Your task to perform on an android device: change the clock display to analog Image 0: 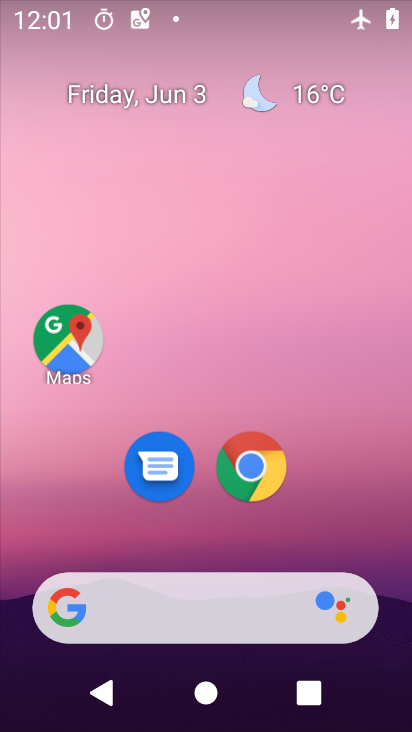
Step 0: drag from (192, 555) to (186, 162)
Your task to perform on an android device: change the clock display to analog Image 1: 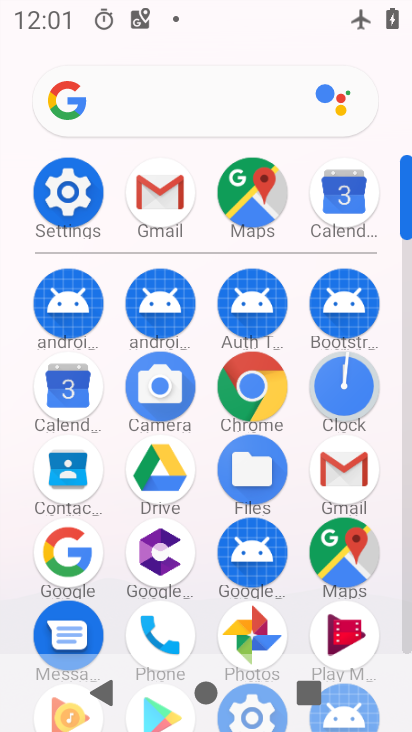
Step 1: click (348, 375)
Your task to perform on an android device: change the clock display to analog Image 2: 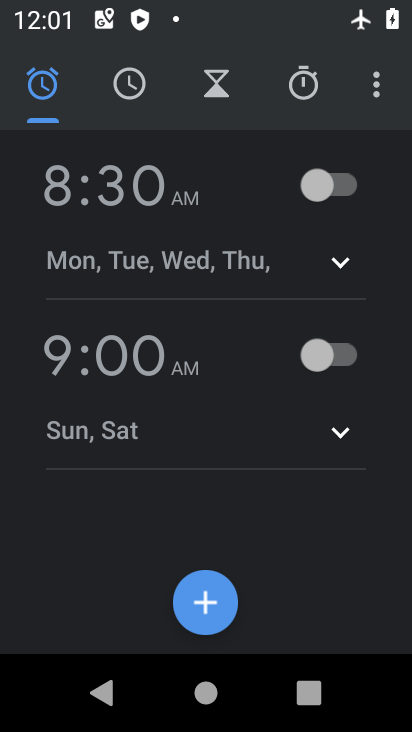
Step 2: click (366, 86)
Your task to perform on an android device: change the clock display to analog Image 3: 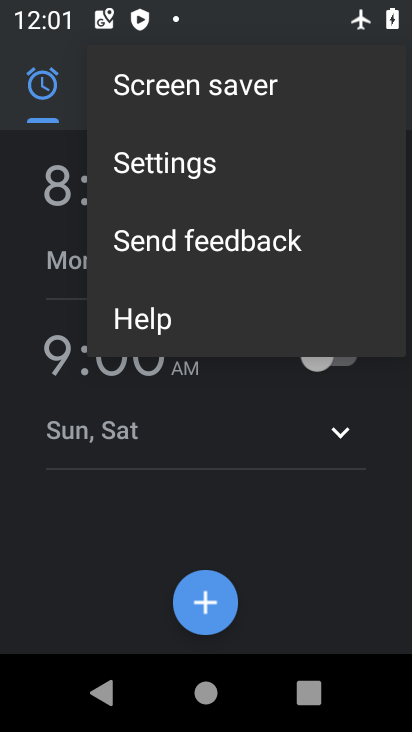
Step 3: click (258, 163)
Your task to perform on an android device: change the clock display to analog Image 4: 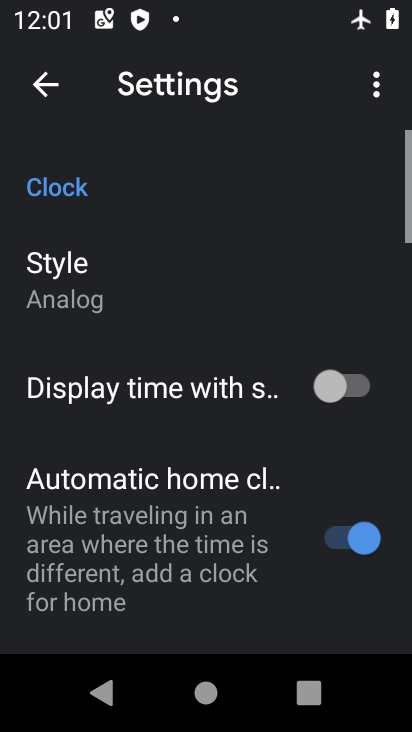
Step 4: click (99, 282)
Your task to perform on an android device: change the clock display to analog Image 5: 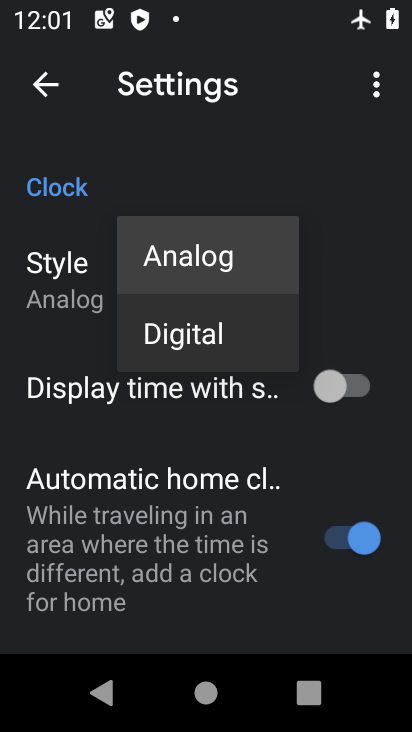
Step 5: task complete